Your task to perform on an android device: turn off picture-in-picture Image 0: 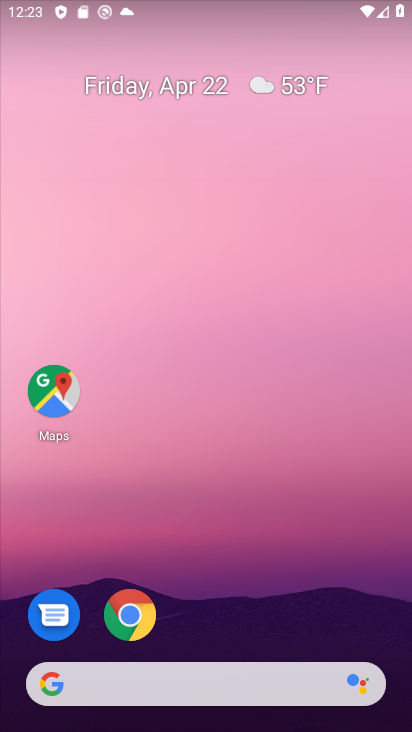
Step 0: click (128, 619)
Your task to perform on an android device: turn off picture-in-picture Image 1: 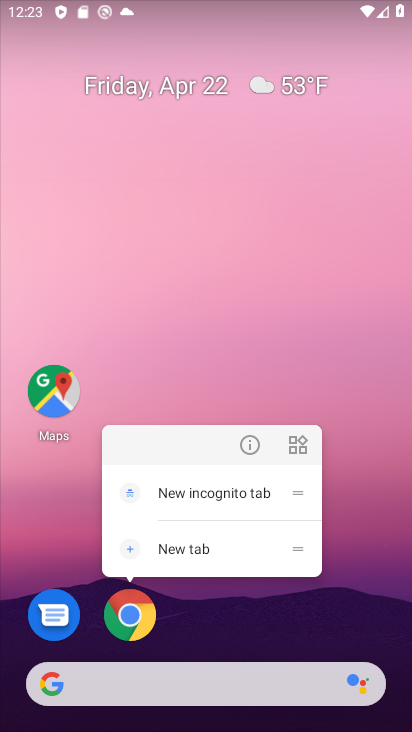
Step 1: click (250, 446)
Your task to perform on an android device: turn off picture-in-picture Image 2: 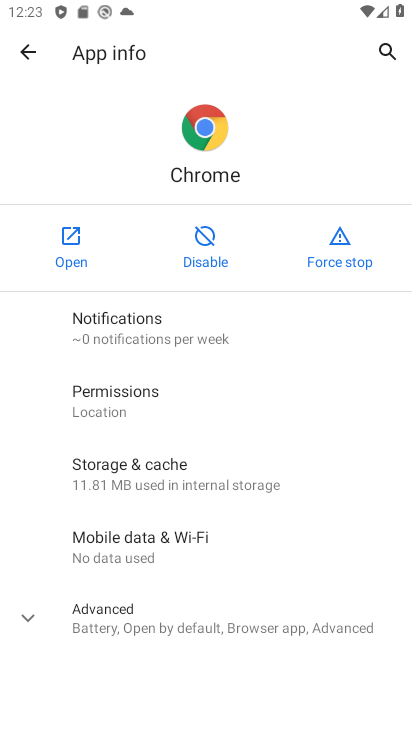
Step 2: drag from (221, 558) to (196, 155)
Your task to perform on an android device: turn off picture-in-picture Image 3: 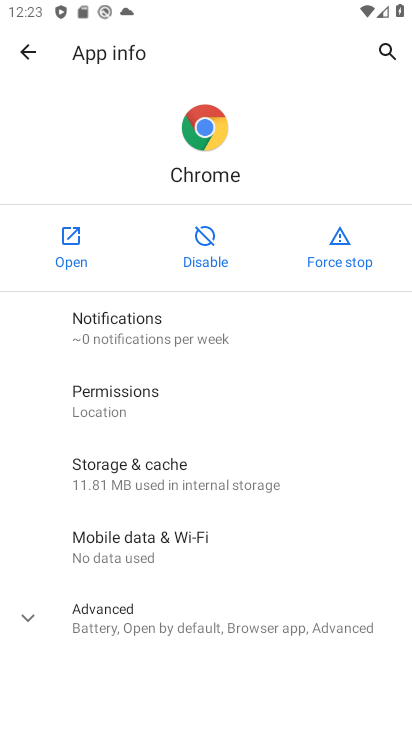
Step 3: click (23, 624)
Your task to perform on an android device: turn off picture-in-picture Image 4: 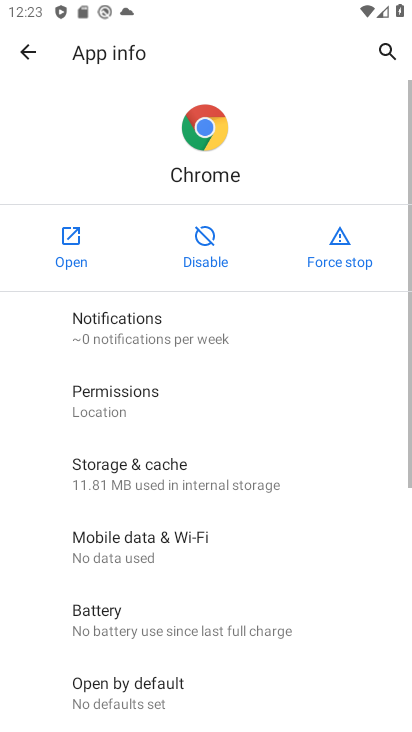
Step 4: drag from (208, 661) to (186, 115)
Your task to perform on an android device: turn off picture-in-picture Image 5: 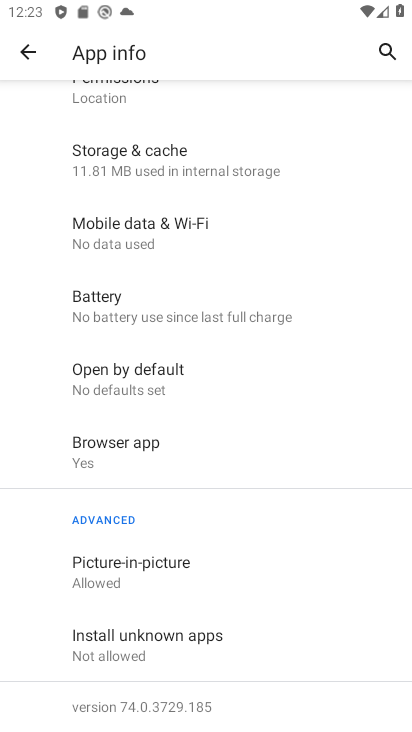
Step 5: click (94, 561)
Your task to perform on an android device: turn off picture-in-picture Image 6: 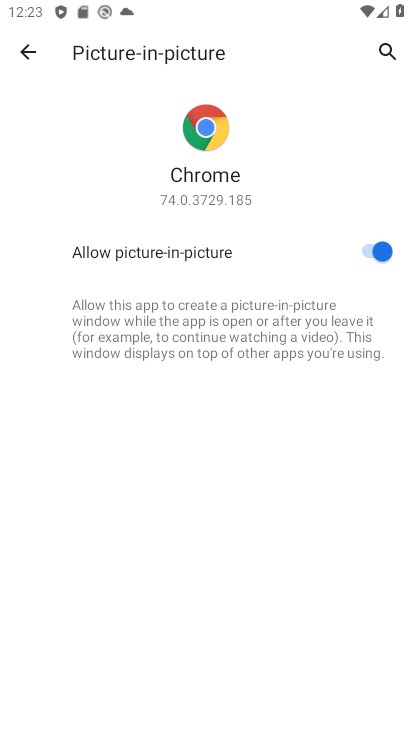
Step 6: click (378, 260)
Your task to perform on an android device: turn off picture-in-picture Image 7: 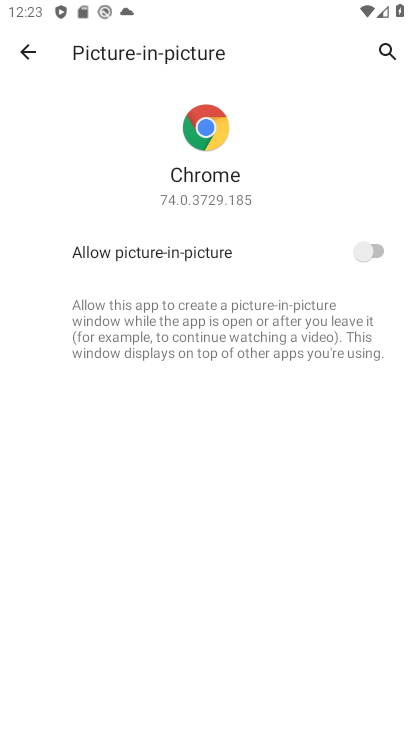
Step 7: task complete